Your task to perform on an android device: Open the calendar app, open the side menu, and click the "Day" option Image 0: 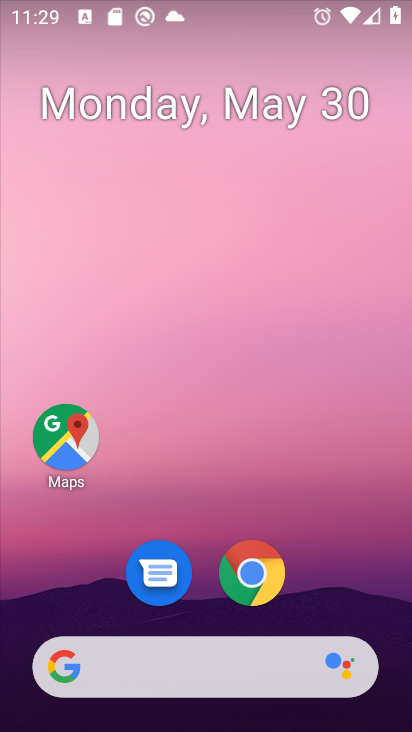
Step 0: drag from (204, 701) to (307, 73)
Your task to perform on an android device: Open the calendar app, open the side menu, and click the "Day" option Image 1: 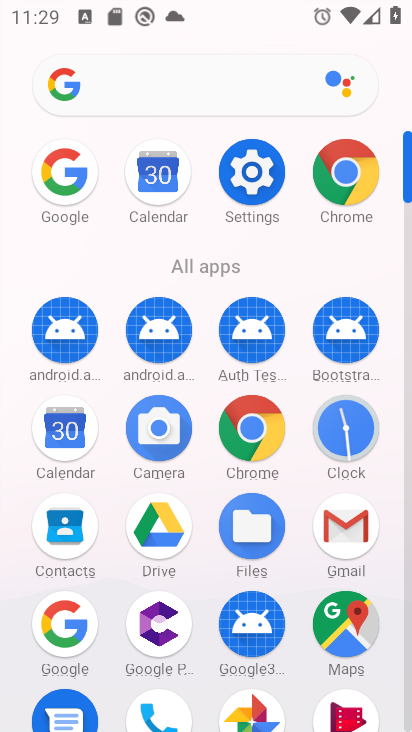
Step 1: click (73, 442)
Your task to perform on an android device: Open the calendar app, open the side menu, and click the "Day" option Image 2: 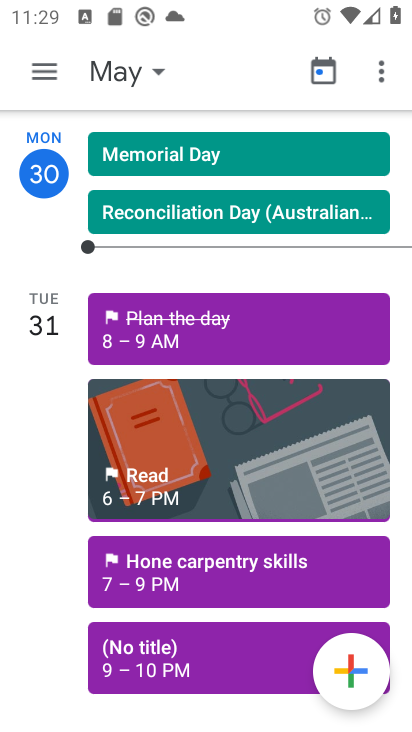
Step 2: click (50, 82)
Your task to perform on an android device: Open the calendar app, open the side menu, and click the "Day" option Image 3: 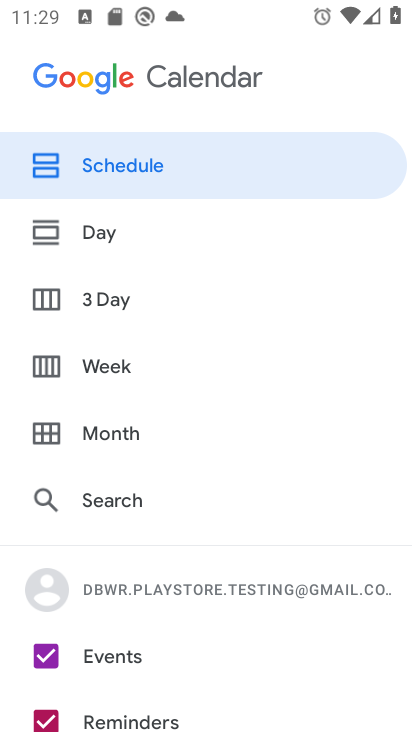
Step 3: click (118, 258)
Your task to perform on an android device: Open the calendar app, open the side menu, and click the "Day" option Image 4: 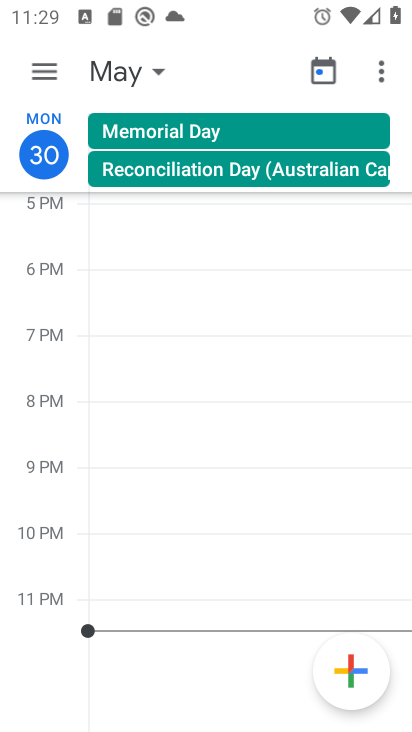
Step 4: task complete